Your task to perform on an android device: Open Youtube and go to the subscriptions tab Image 0: 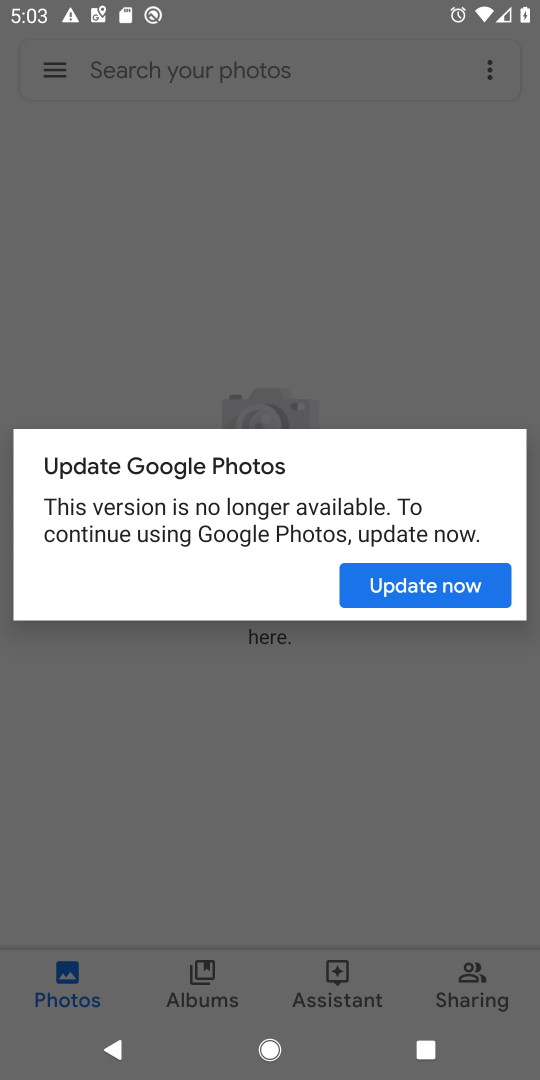
Step 0: press back button
Your task to perform on an android device: Open Youtube and go to the subscriptions tab Image 1: 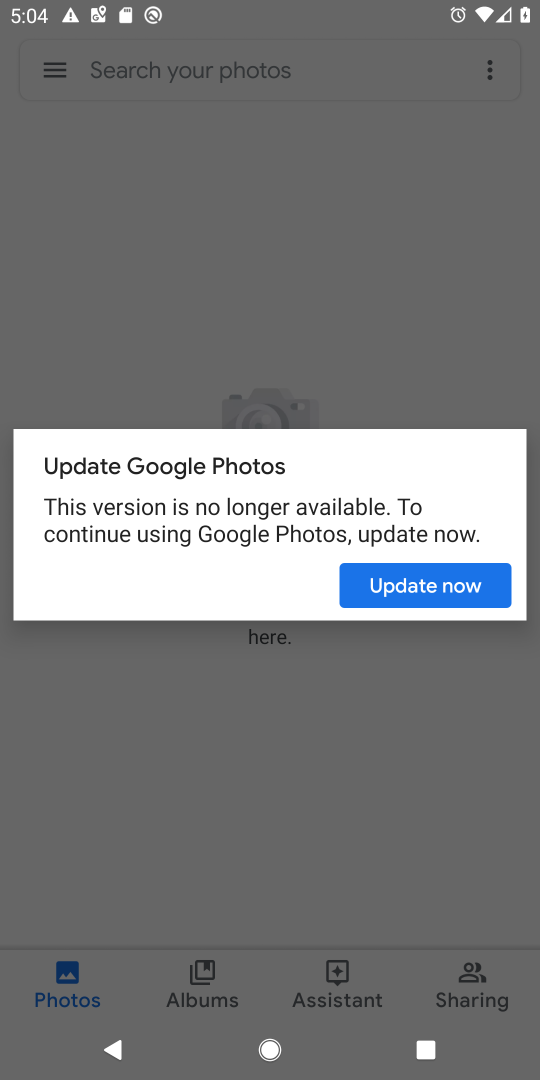
Step 1: press back button
Your task to perform on an android device: Open Youtube and go to the subscriptions tab Image 2: 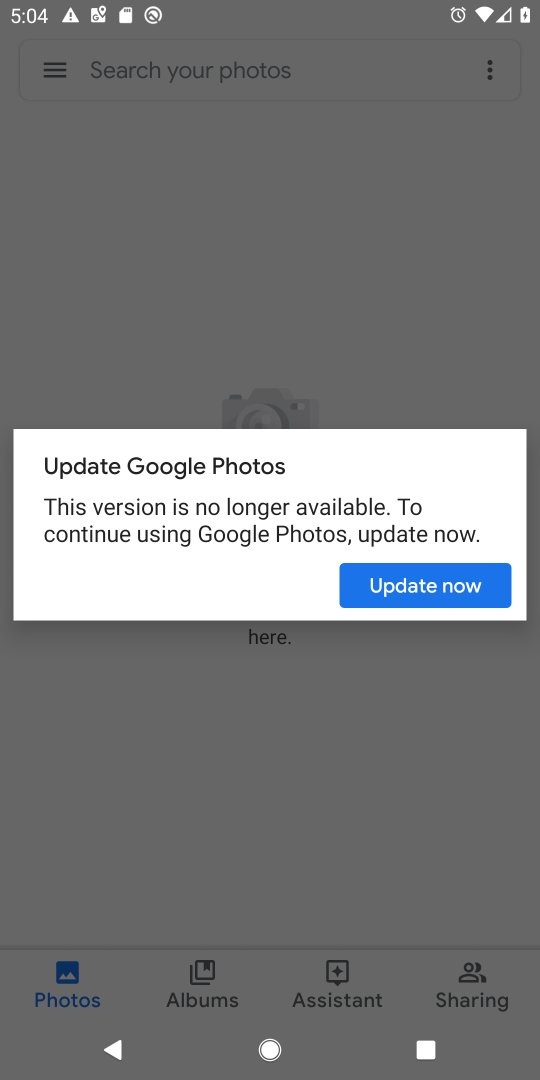
Step 2: press back button
Your task to perform on an android device: Open Youtube and go to the subscriptions tab Image 3: 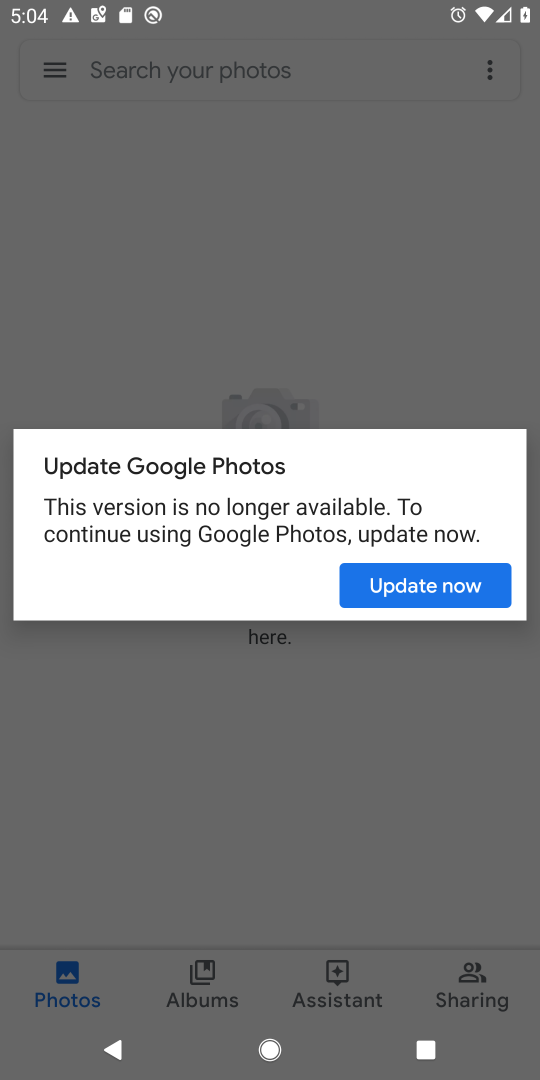
Step 3: press back button
Your task to perform on an android device: Open Youtube and go to the subscriptions tab Image 4: 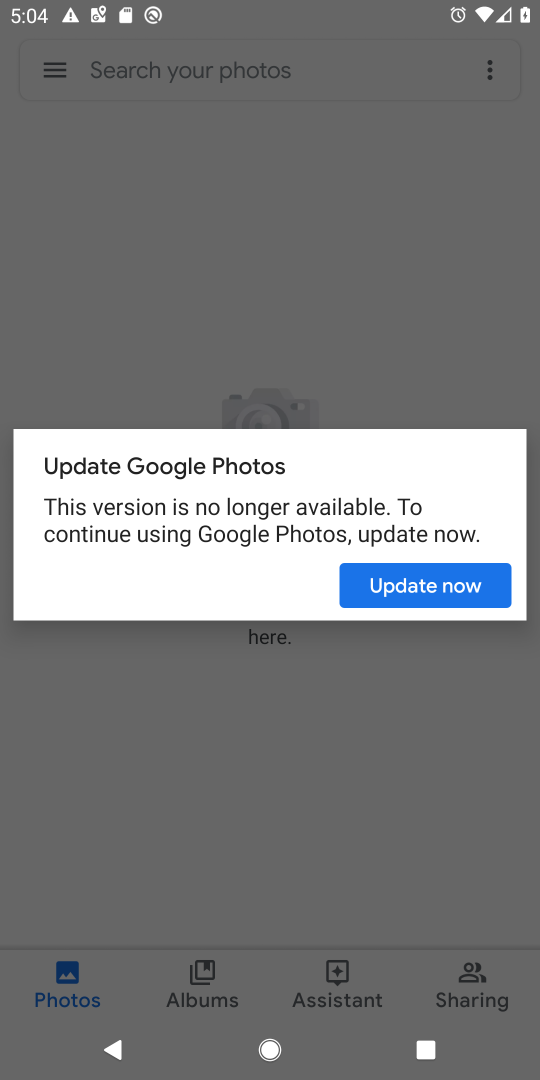
Step 4: press home button
Your task to perform on an android device: Open Youtube and go to the subscriptions tab Image 5: 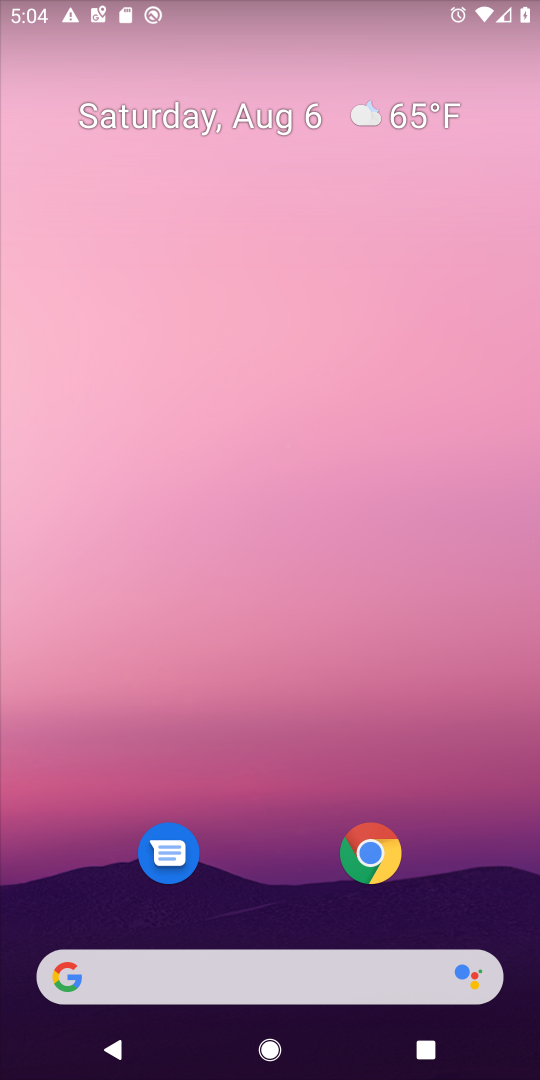
Step 5: drag from (268, 857) to (318, 74)
Your task to perform on an android device: Open Youtube and go to the subscriptions tab Image 6: 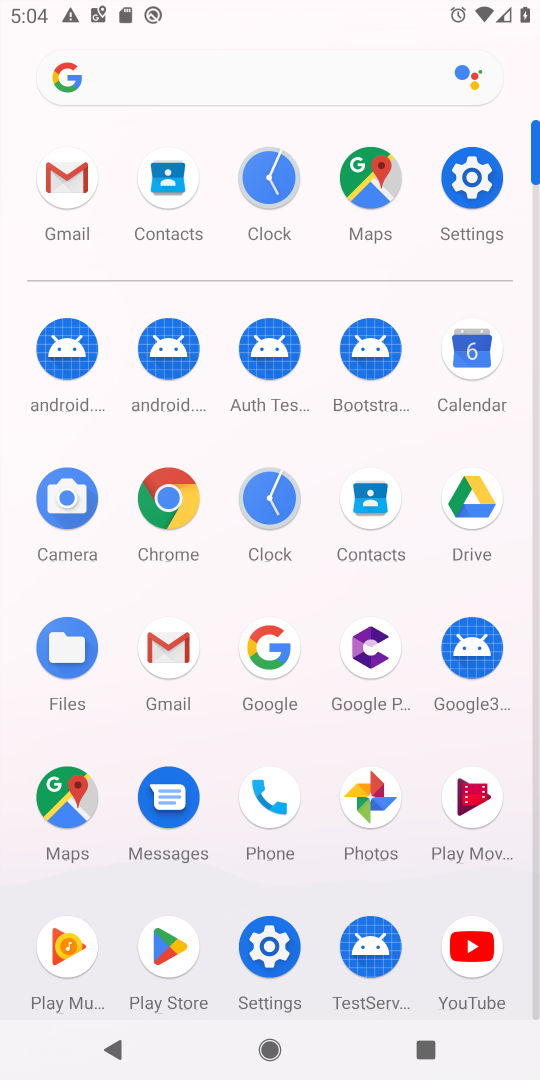
Step 6: click (481, 959)
Your task to perform on an android device: Open Youtube and go to the subscriptions tab Image 7: 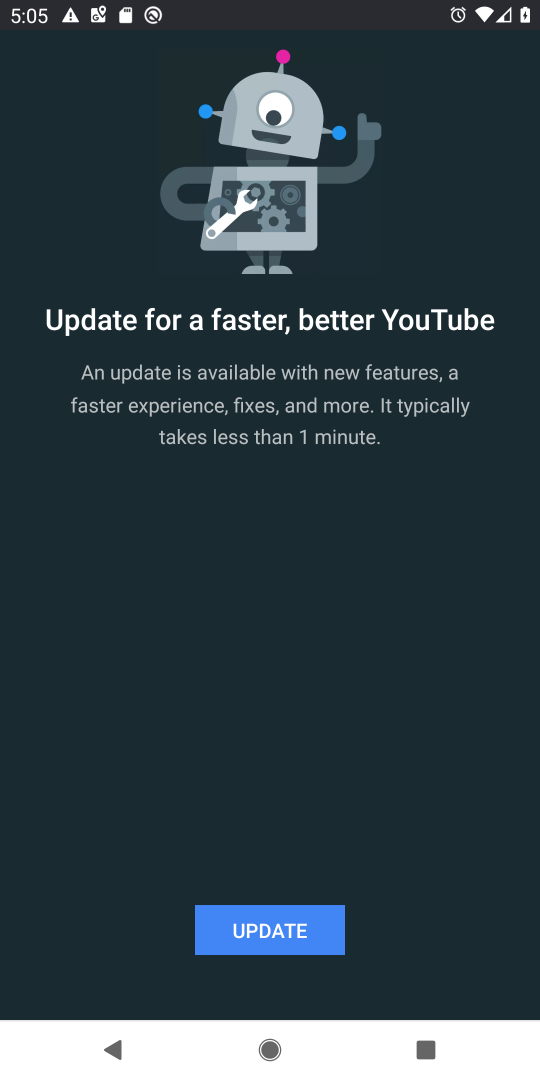
Step 7: task complete